Your task to perform on an android device: turn on priority inbox in the gmail app Image 0: 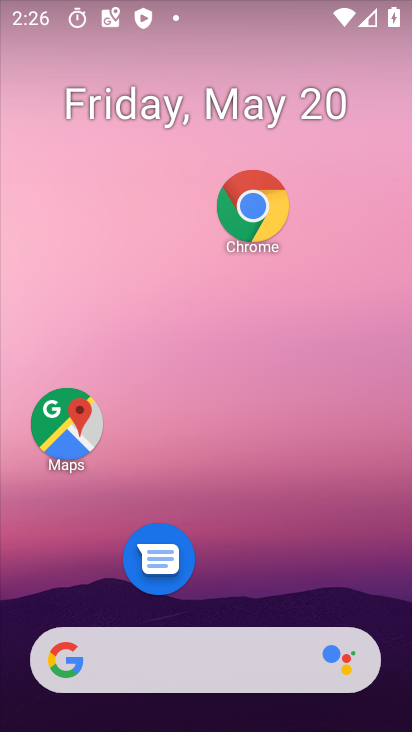
Step 0: drag from (212, 623) to (176, 175)
Your task to perform on an android device: turn on priority inbox in the gmail app Image 1: 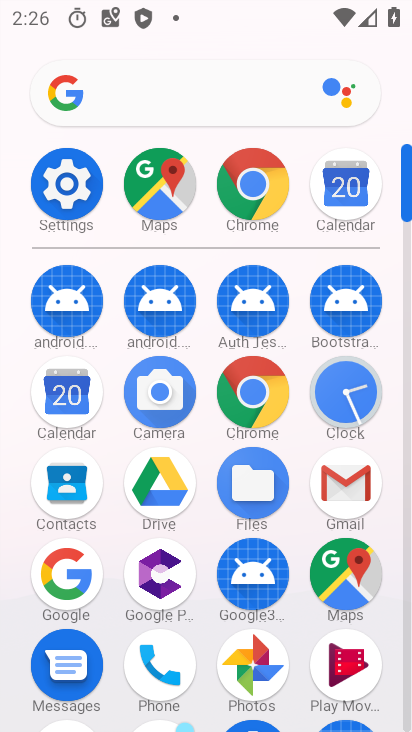
Step 1: click (341, 503)
Your task to perform on an android device: turn on priority inbox in the gmail app Image 2: 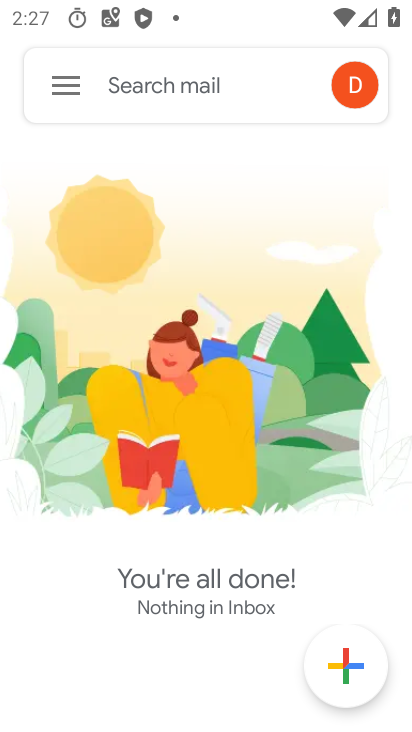
Step 2: click (50, 86)
Your task to perform on an android device: turn on priority inbox in the gmail app Image 3: 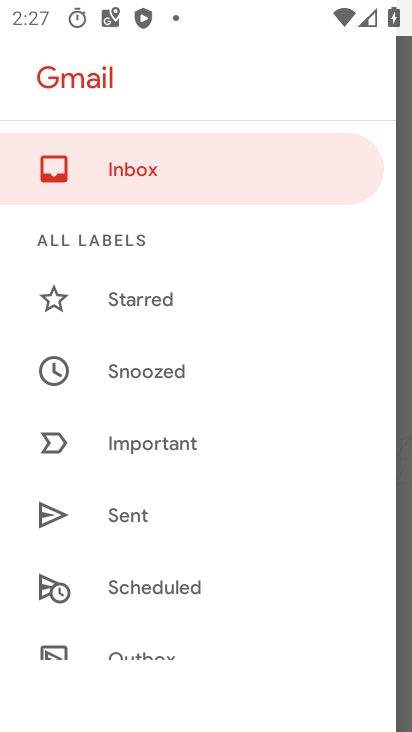
Step 3: drag from (139, 634) to (75, 81)
Your task to perform on an android device: turn on priority inbox in the gmail app Image 4: 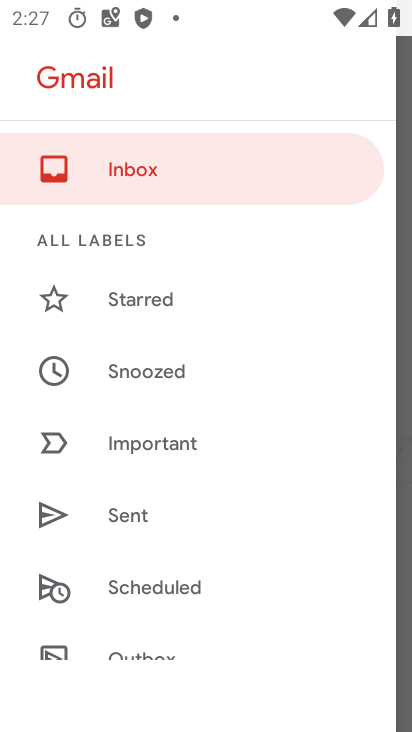
Step 4: drag from (154, 563) to (165, 73)
Your task to perform on an android device: turn on priority inbox in the gmail app Image 5: 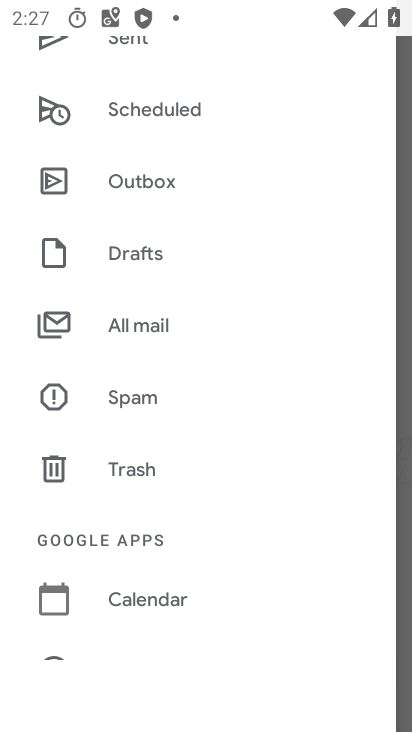
Step 5: drag from (195, 575) to (179, 182)
Your task to perform on an android device: turn on priority inbox in the gmail app Image 6: 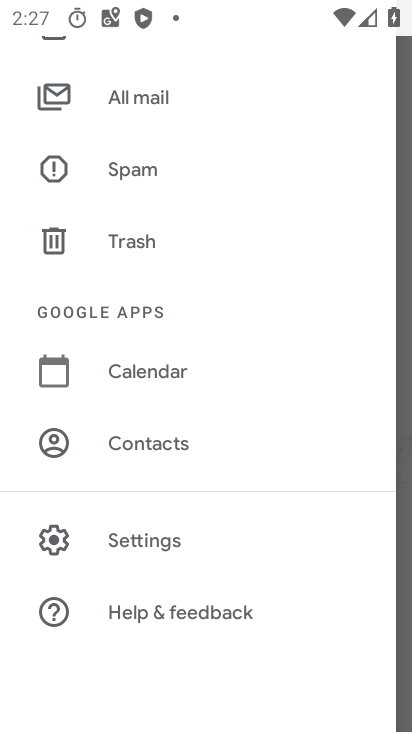
Step 6: click (122, 537)
Your task to perform on an android device: turn on priority inbox in the gmail app Image 7: 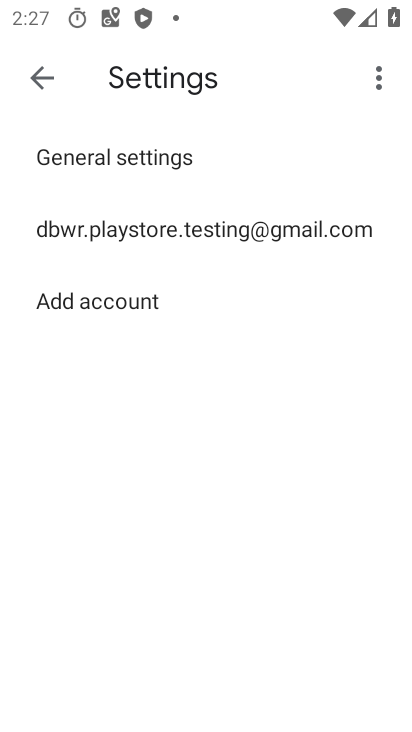
Step 7: click (89, 236)
Your task to perform on an android device: turn on priority inbox in the gmail app Image 8: 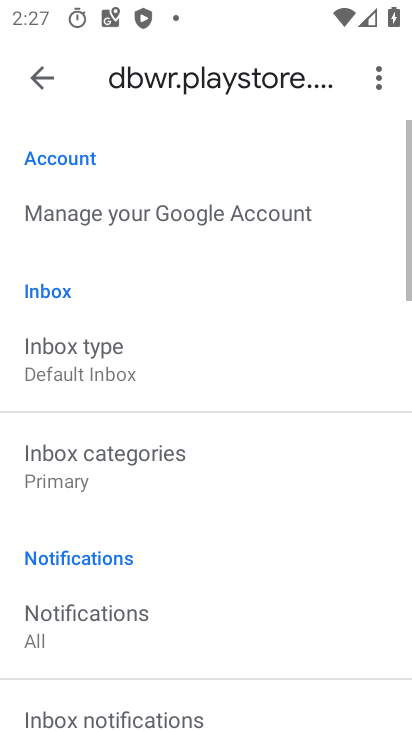
Step 8: click (97, 375)
Your task to perform on an android device: turn on priority inbox in the gmail app Image 9: 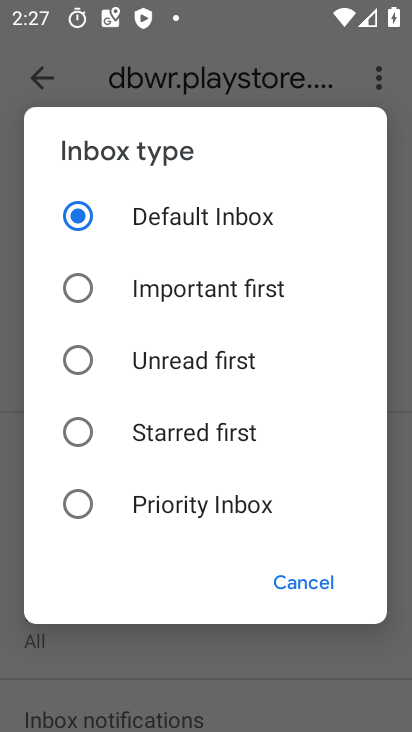
Step 9: click (147, 498)
Your task to perform on an android device: turn on priority inbox in the gmail app Image 10: 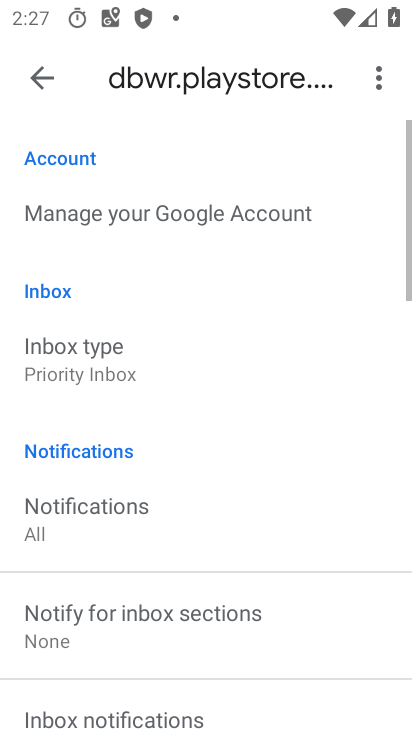
Step 10: task complete